Your task to perform on an android device: See recent photos Image 0: 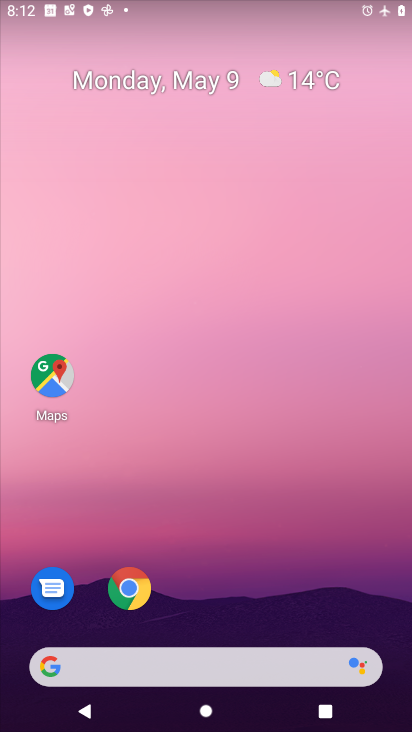
Step 0: drag from (347, 604) to (278, 4)
Your task to perform on an android device: See recent photos Image 1: 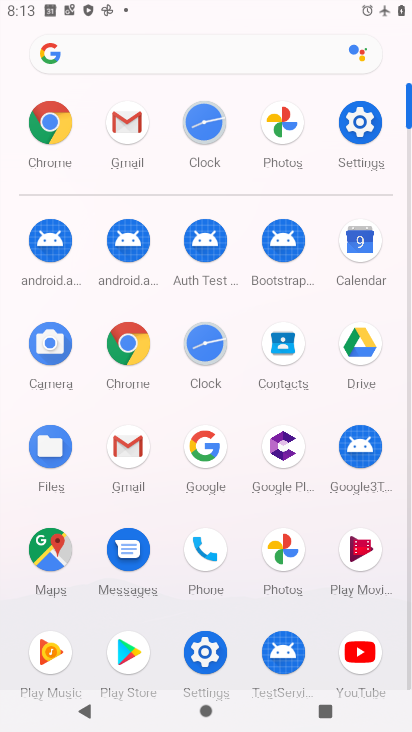
Step 1: click (267, 551)
Your task to perform on an android device: See recent photos Image 2: 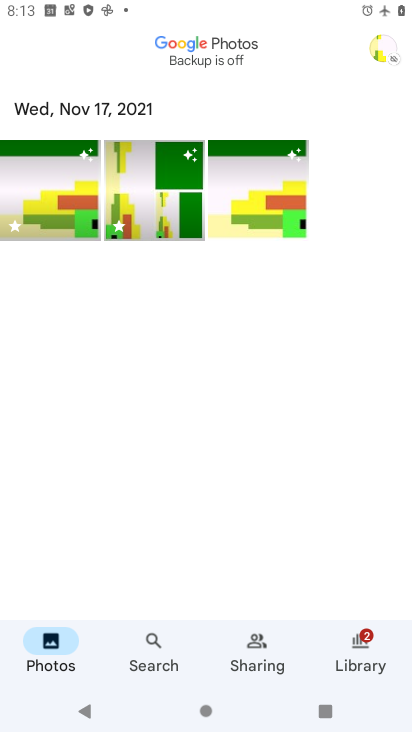
Step 2: click (49, 188)
Your task to perform on an android device: See recent photos Image 3: 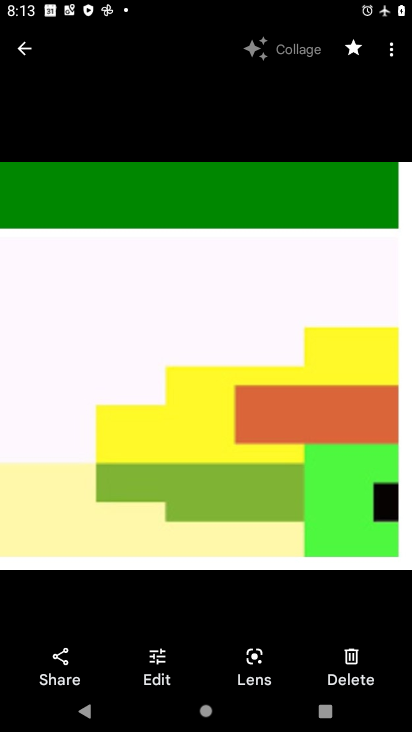
Step 3: task complete